Your task to perform on an android device: turn off smart reply in the gmail app Image 0: 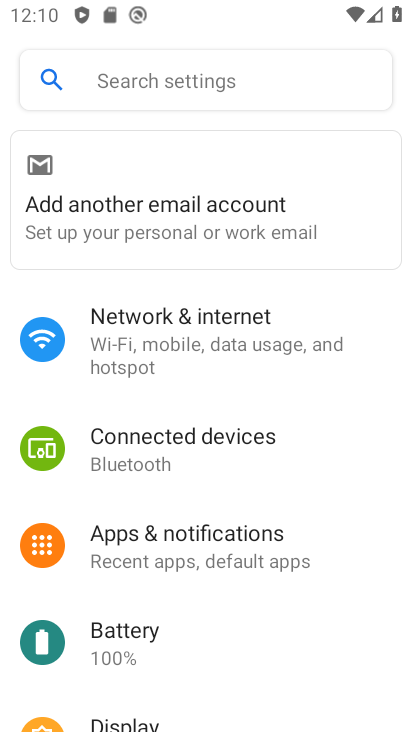
Step 0: press back button
Your task to perform on an android device: turn off smart reply in the gmail app Image 1: 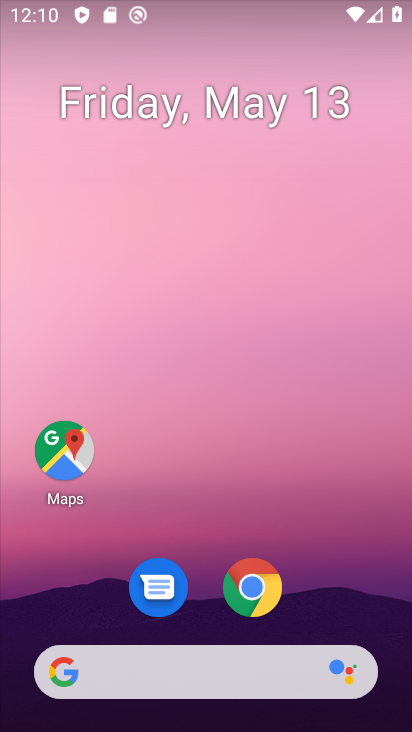
Step 1: drag from (175, 566) to (296, 111)
Your task to perform on an android device: turn off smart reply in the gmail app Image 2: 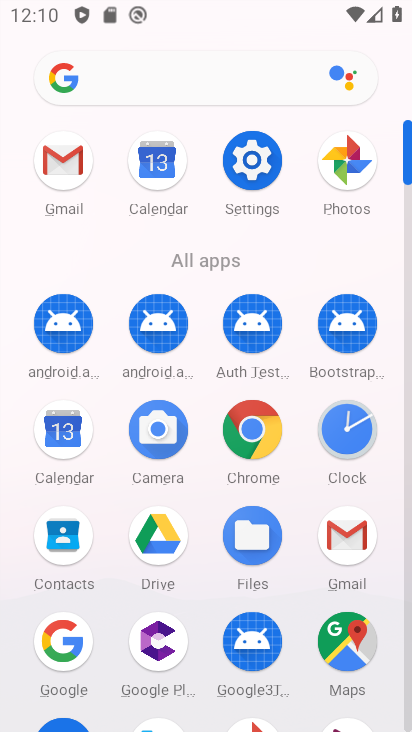
Step 2: click (345, 536)
Your task to perform on an android device: turn off smart reply in the gmail app Image 3: 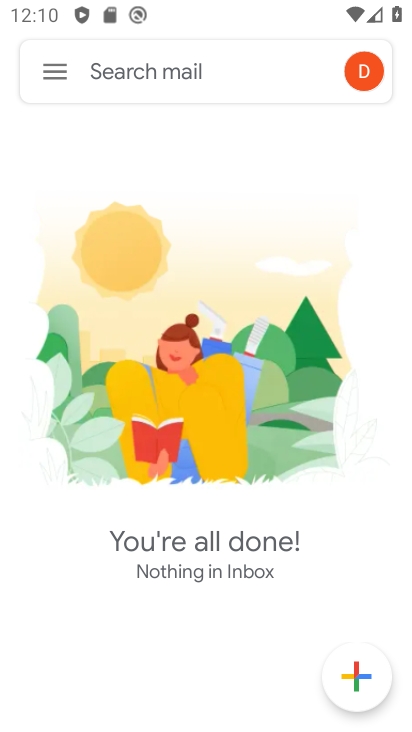
Step 3: click (59, 72)
Your task to perform on an android device: turn off smart reply in the gmail app Image 4: 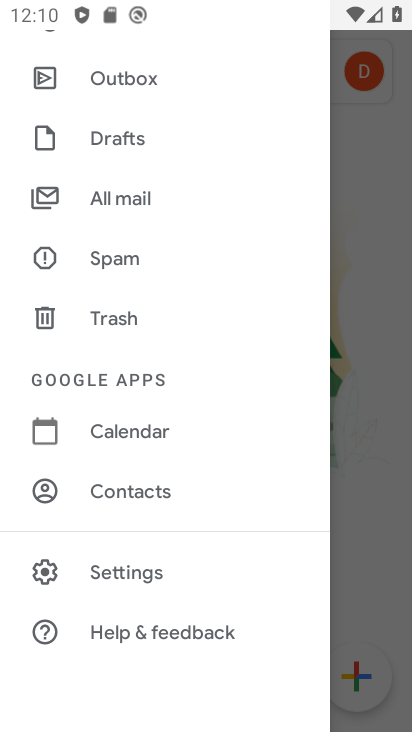
Step 4: click (111, 580)
Your task to perform on an android device: turn off smart reply in the gmail app Image 5: 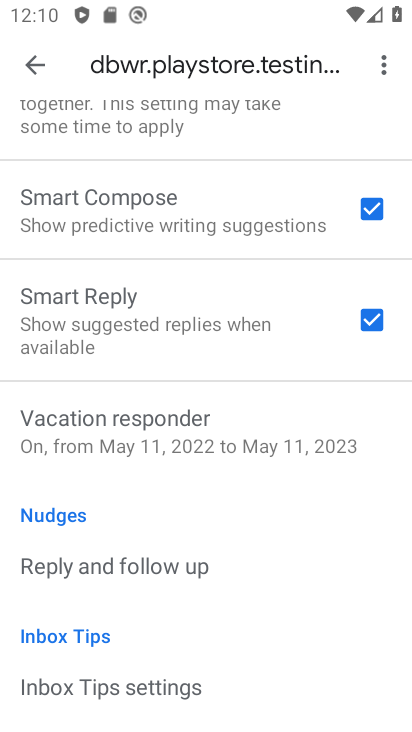
Step 5: click (367, 322)
Your task to perform on an android device: turn off smart reply in the gmail app Image 6: 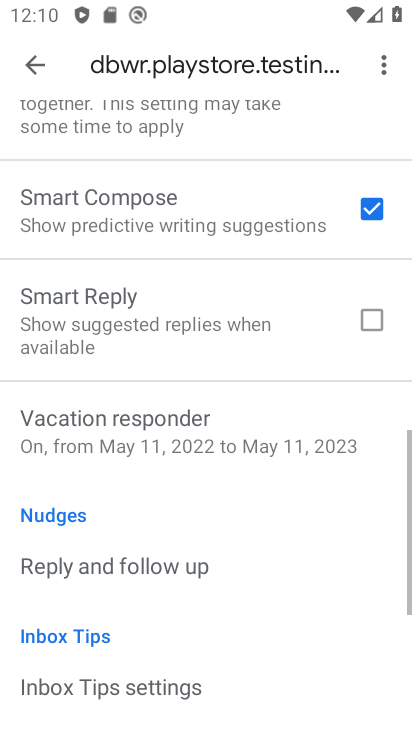
Step 6: task complete